Your task to perform on an android device: check the backup settings in the google photos Image 0: 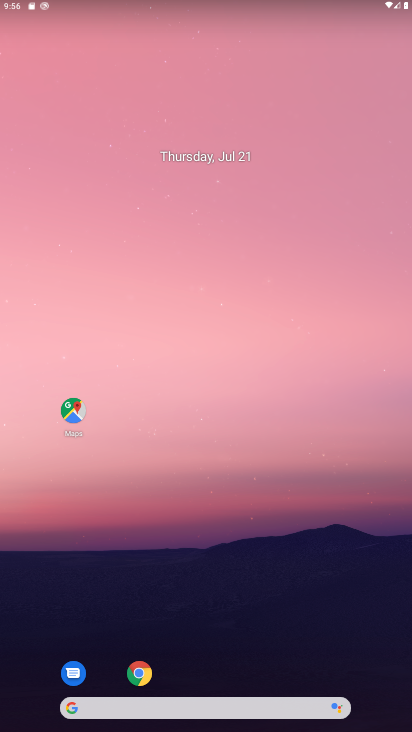
Step 0: drag from (203, 672) to (215, 218)
Your task to perform on an android device: check the backup settings in the google photos Image 1: 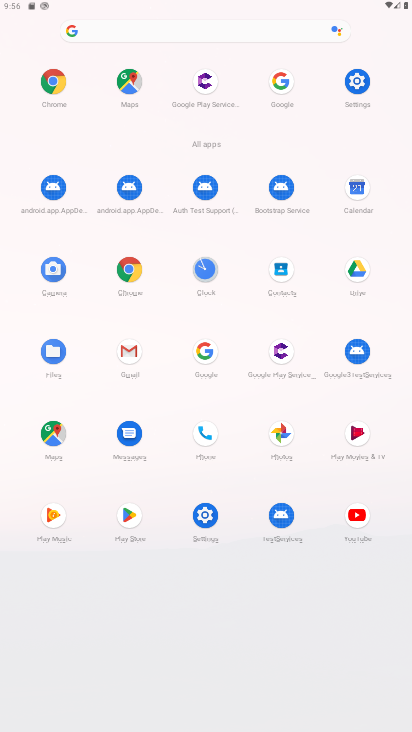
Step 1: click (282, 435)
Your task to perform on an android device: check the backup settings in the google photos Image 2: 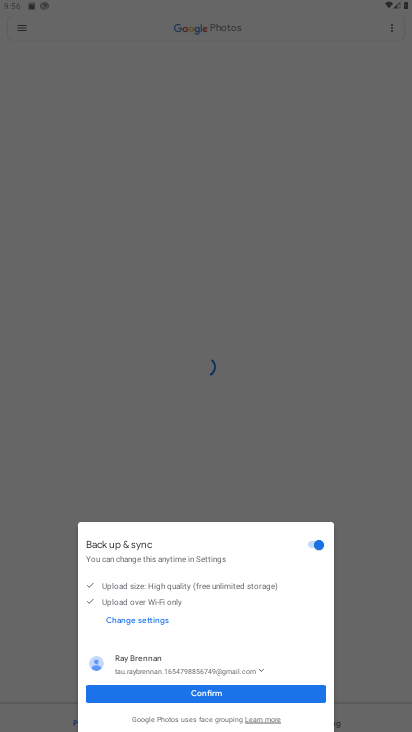
Step 2: click (167, 694)
Your task to perform on an android device: check the backup settings in the google photos Image 3: 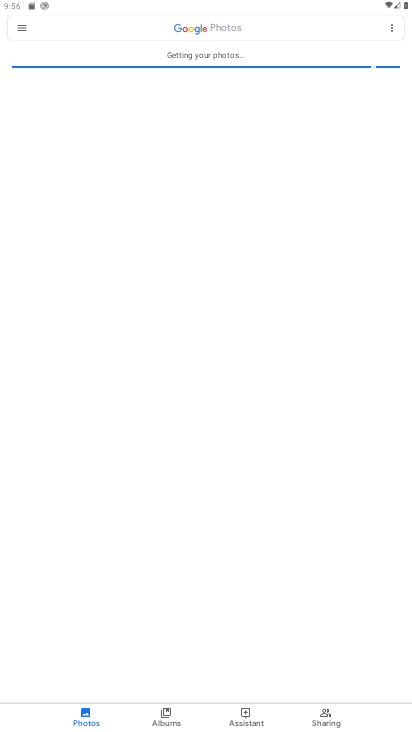
Step 3: click (18, 27)
Your task to perform on an android device: check the backup settings in the google photos Image 4: 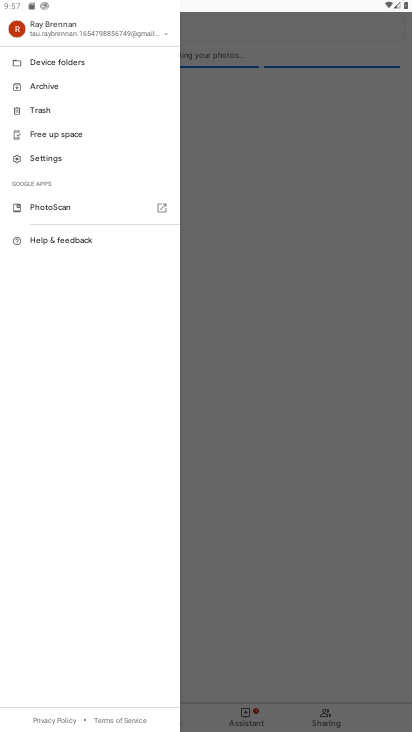
Step 4: click (34, 166)
Your task to perform on an android device: check the backup settings in the google photos Image 5: 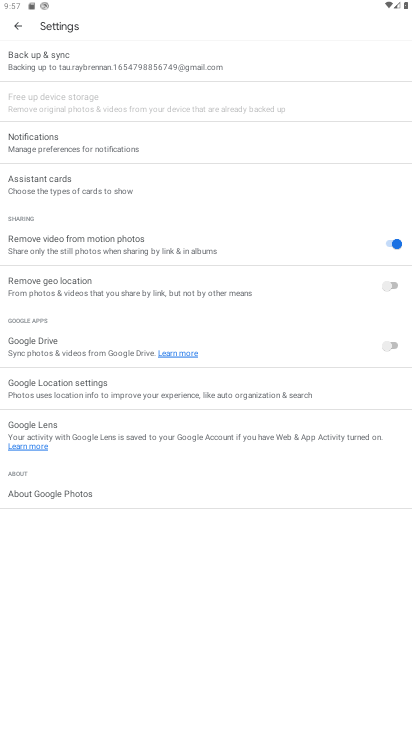
Step 5: click (74, 60)
Your task to perform on an android device: check the backup settings in the google photos Image 6: 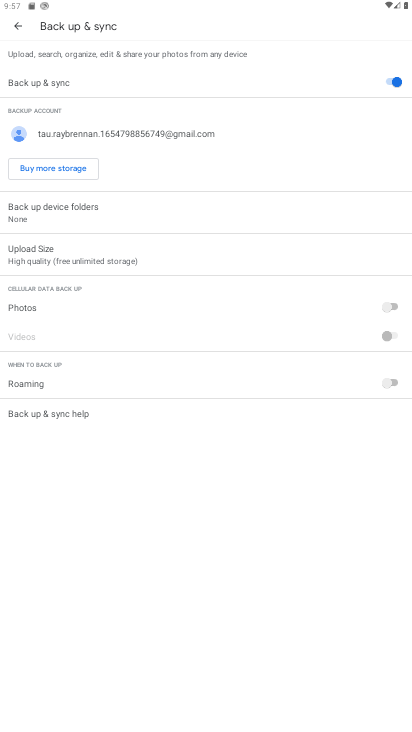
Step 6: task complete